Your task to perform on an android device: set an alarm Image 0: 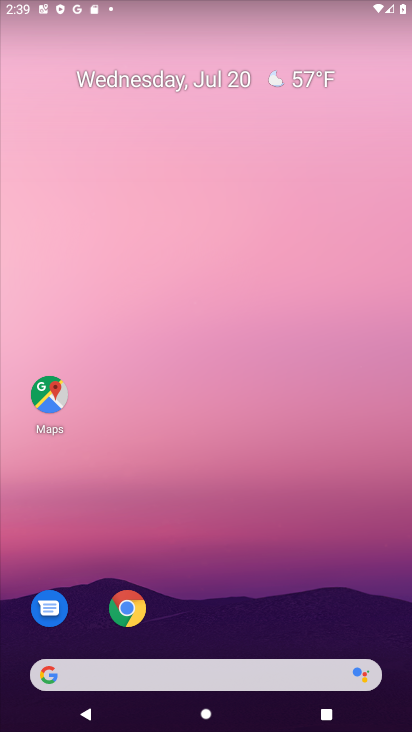
Step 0: drag from (229, 624) to (203, 147)
Your task to perform on an android device: set an alarm Image 1: 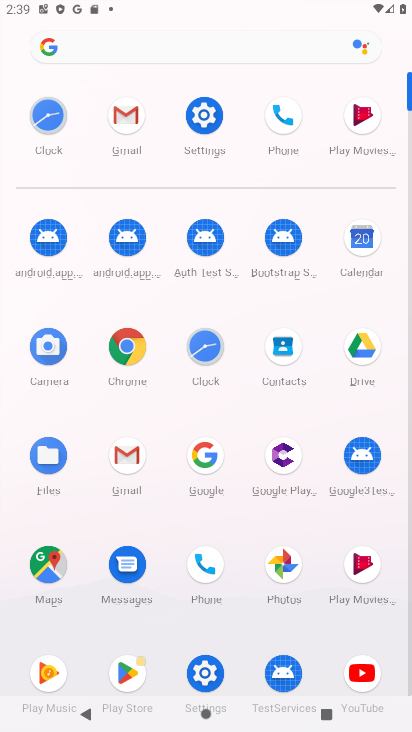
Step 1: click (46, 122)
Your task to perform on an android device: set an alarm Image 2: 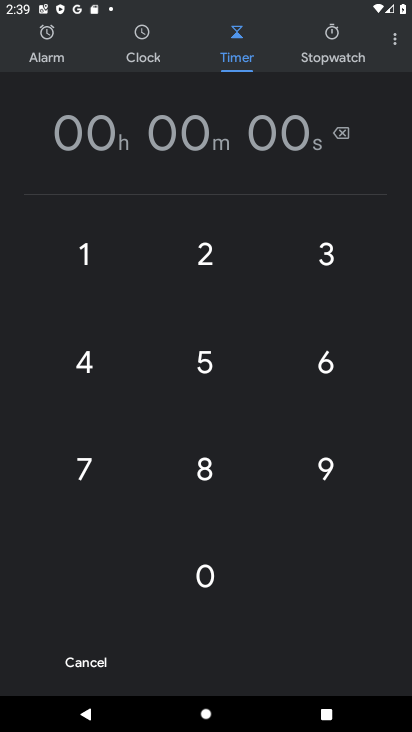
Step 2: click (50, 56)
Your task to perform on an android device: set an alarm Image 3: 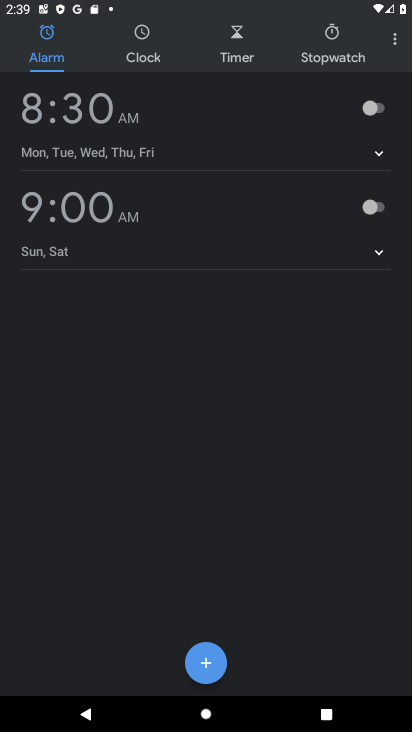
Step 3: click (376, 118)
Your task to perform on an android device: set an alarm Image 4: 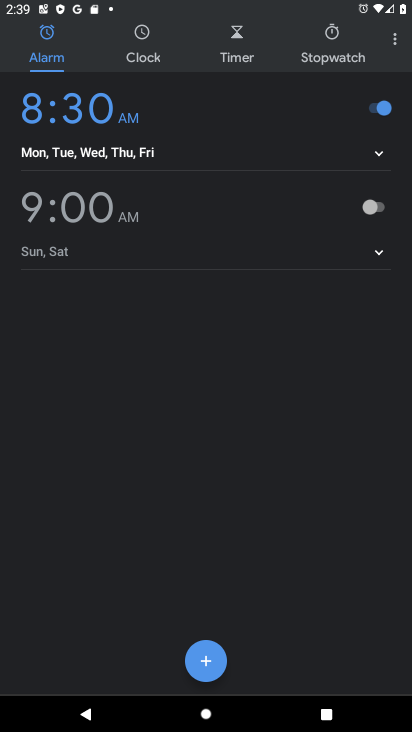
Step 4: task complete